Your task to perform on an android device: open the mobile data screen to see how much data has been used Image 0: 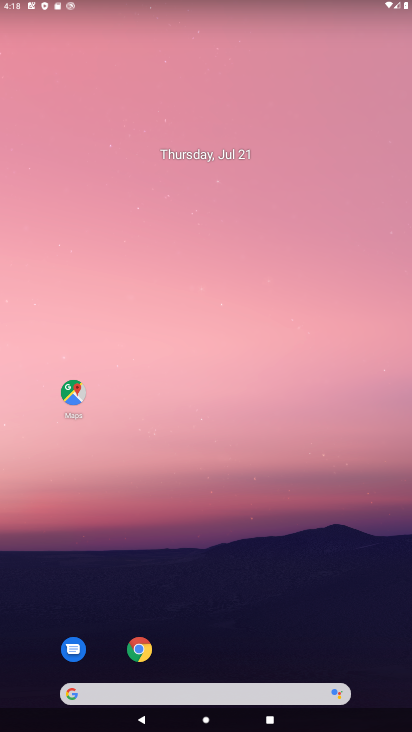
Step 0: drag from (131, 446) to (156, 207)
Your task to perform on an android device: open the mobile data screen to see how much data has been used Image 1: 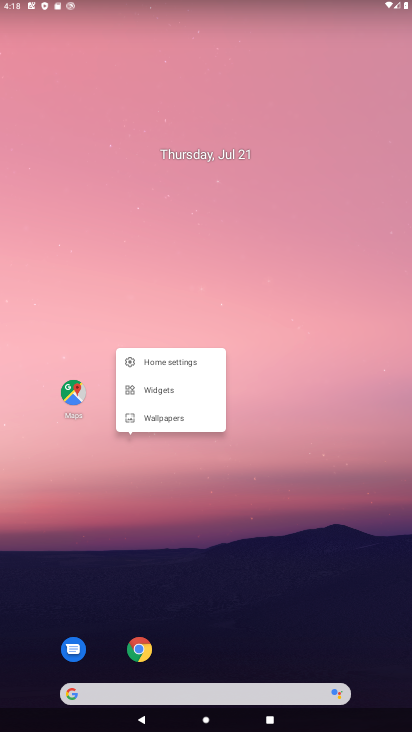
Step 1: drag from (164, 649) to (229, 124)
Your task to perform on an android device: open the mobile data screen to see how much data has been used Image 2: 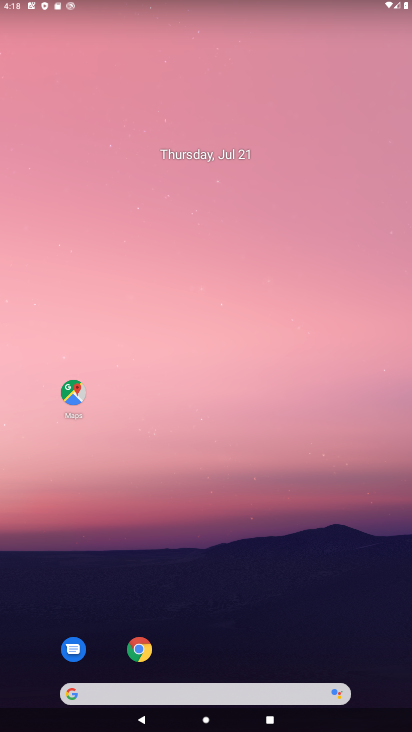
Step 2: drag from (211, 667) to (216, 240)
Your task to perform on an android device: open the mobile data screen to see how much data has been used Image 3: 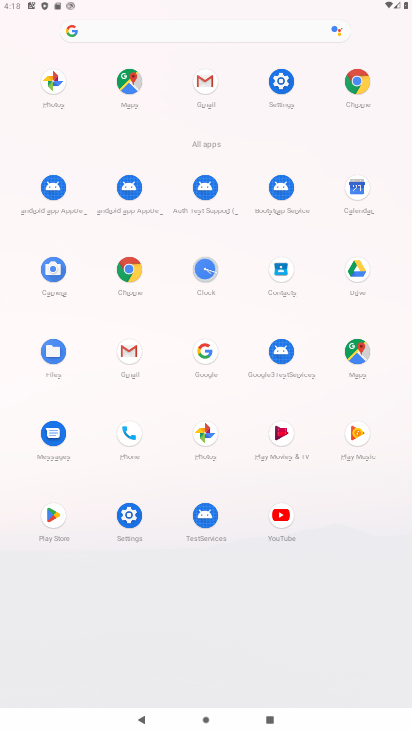
Step 3: click (126, 511)
Your task to perform on an android device: open the mobile data screen to see how much data has been used Image 4: 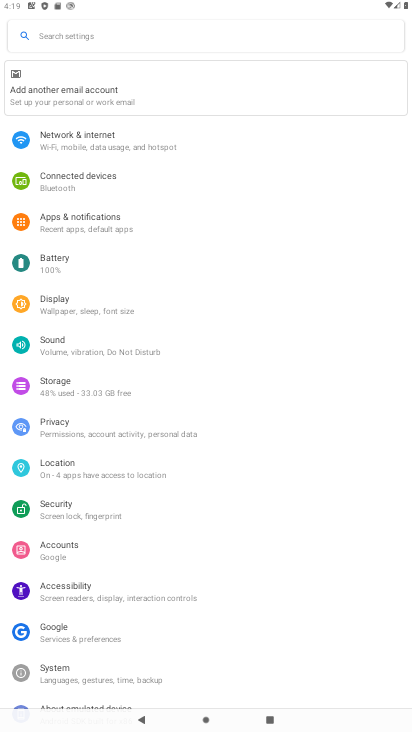
Step 4: click (111, 142)
Your task to perform on an android device: open the mobile data screen to see how much data has been used Image 5: 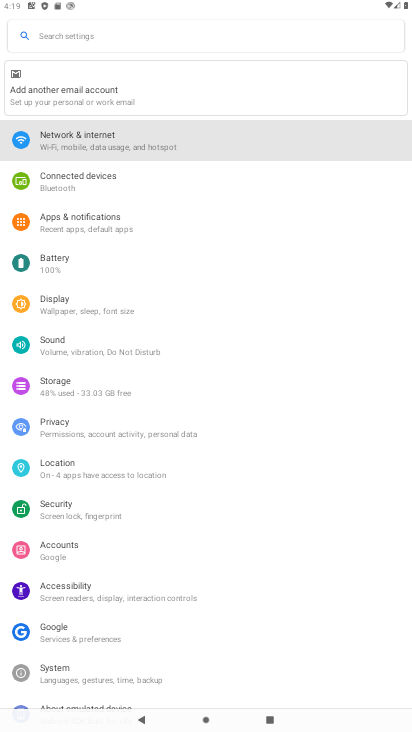
Step 5: click (111, 142)
Your task to perform on an android device: open the mobile data screen to see how much data has been used Image 6: 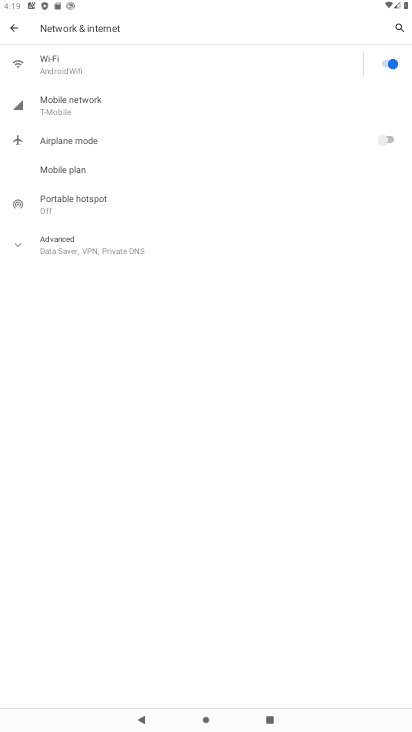
Step 6: click (62, 99)
Your task to perform on an android device: open the mobile data screen to see how much data has been used Image 7: 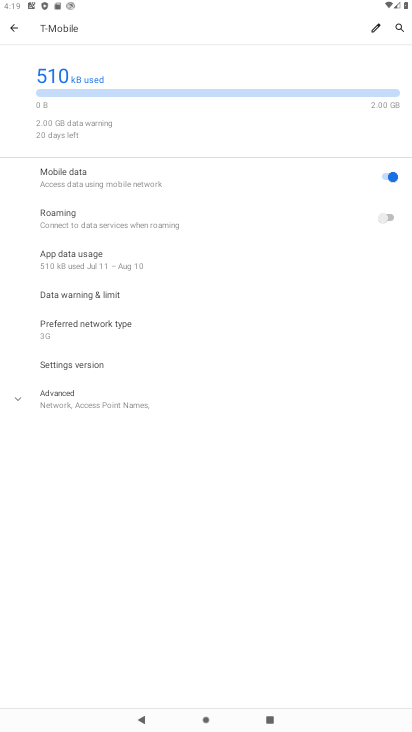
Step 7: task complete